Your task to perform on an android device: check data usage Image 0: 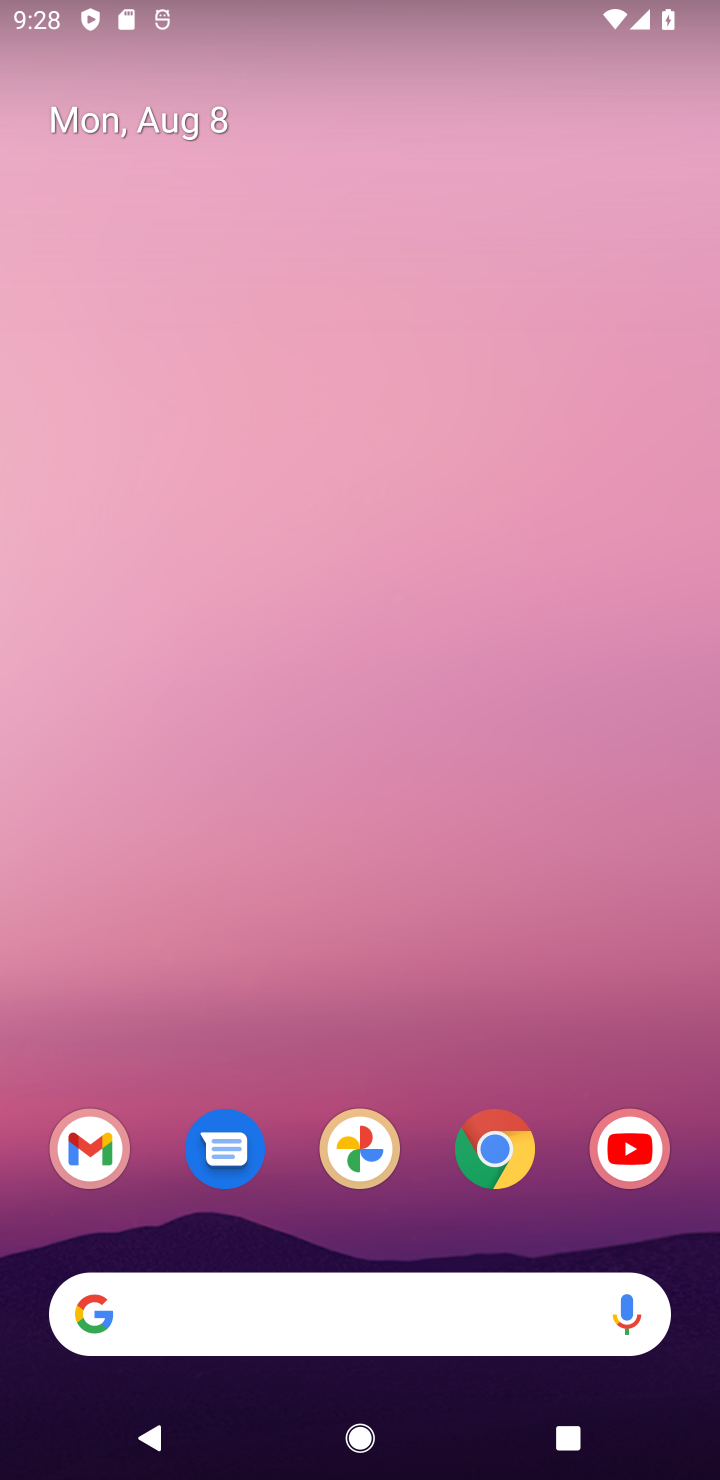
Step 0: drag from (352, 837) to (352, 301)
Your task to perform on an android device: check data usage Image 1: 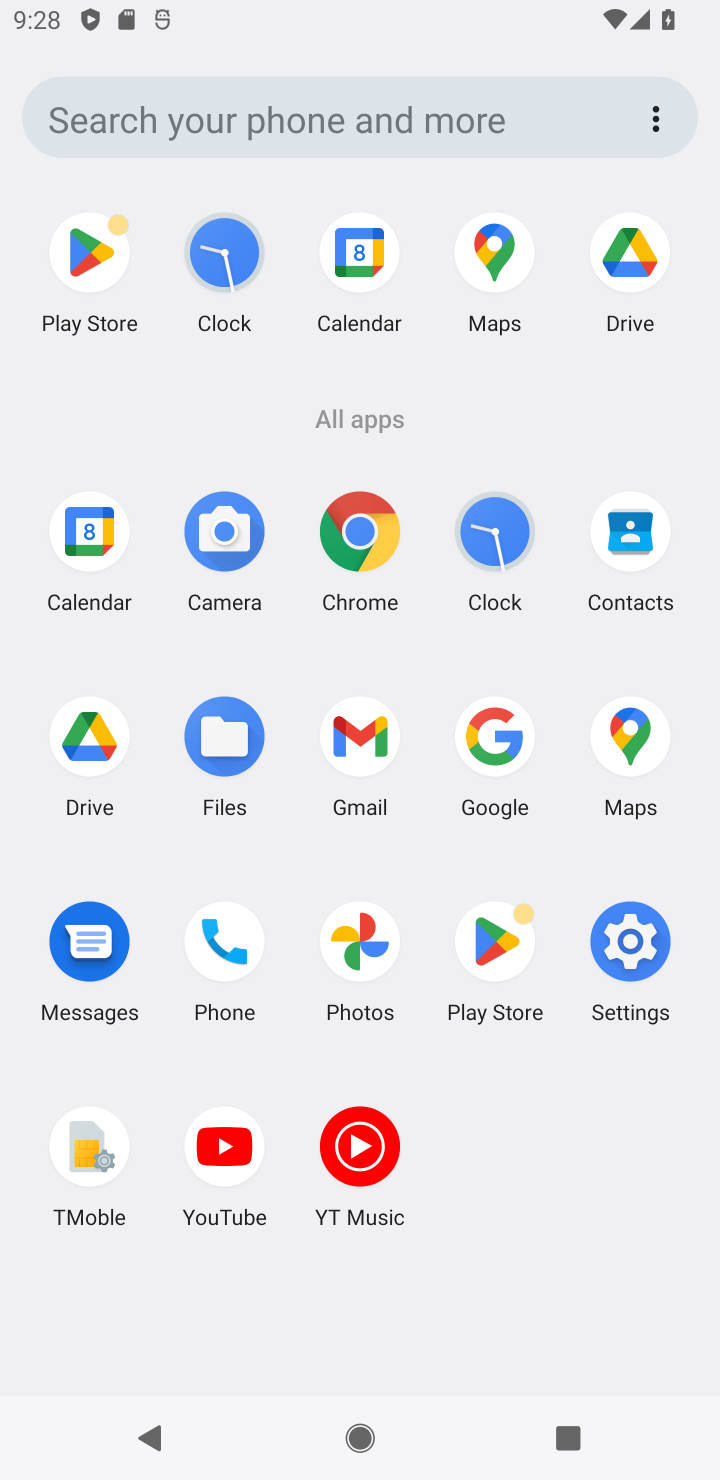
Step 1: click (604, 936)
Your task to perform on an android device: check data usage Image 2: 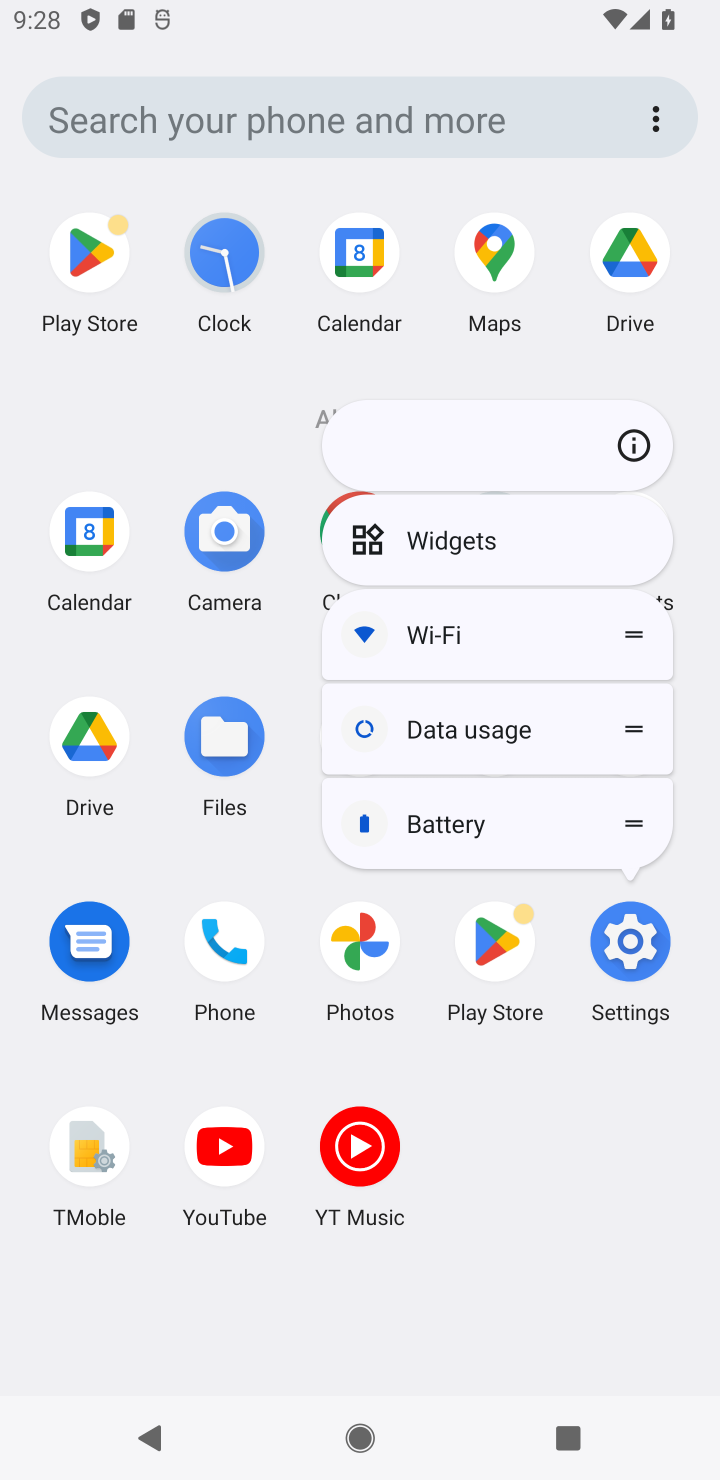
Step 2: click (626, 973)
Your task to perform on an android device: check data usage Image 3: 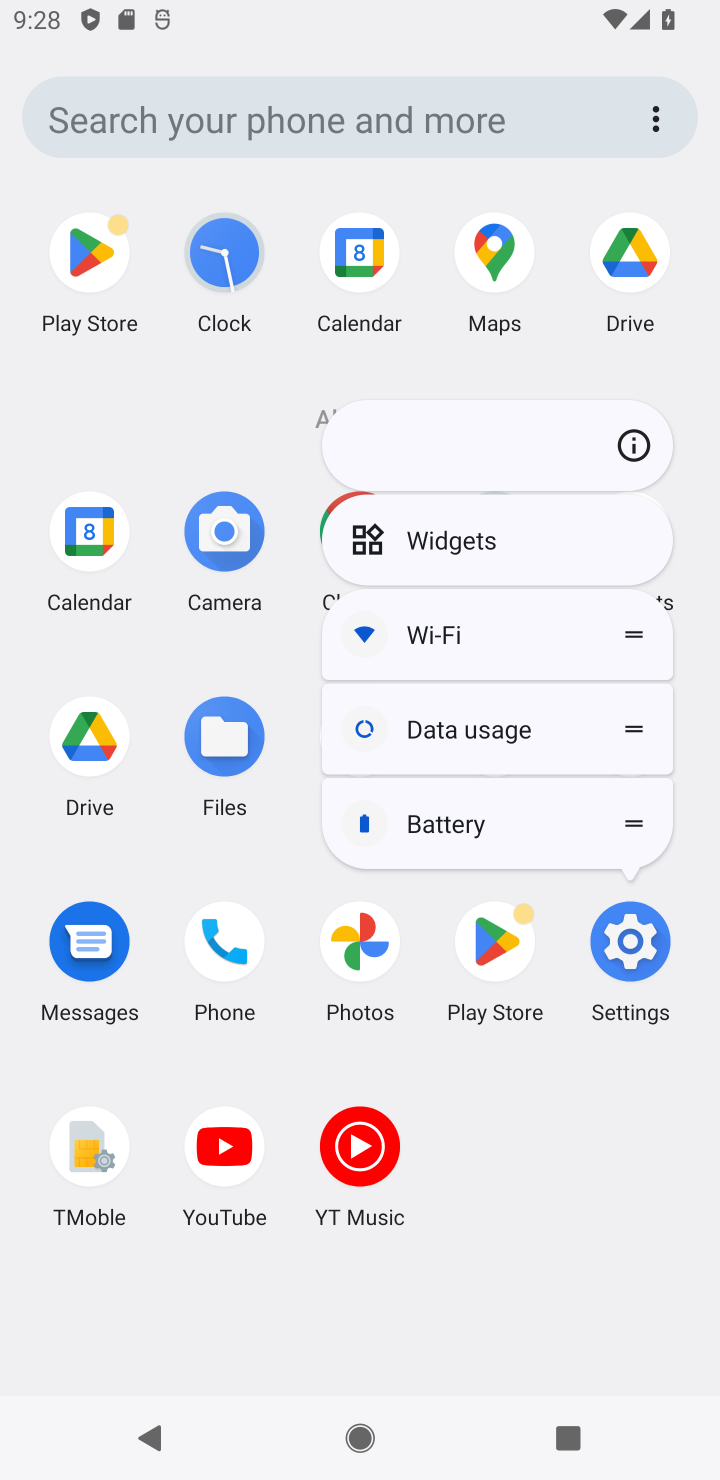
Step 3: click (636, 947)
Your task to perform on an android device: check data usage Image 4: 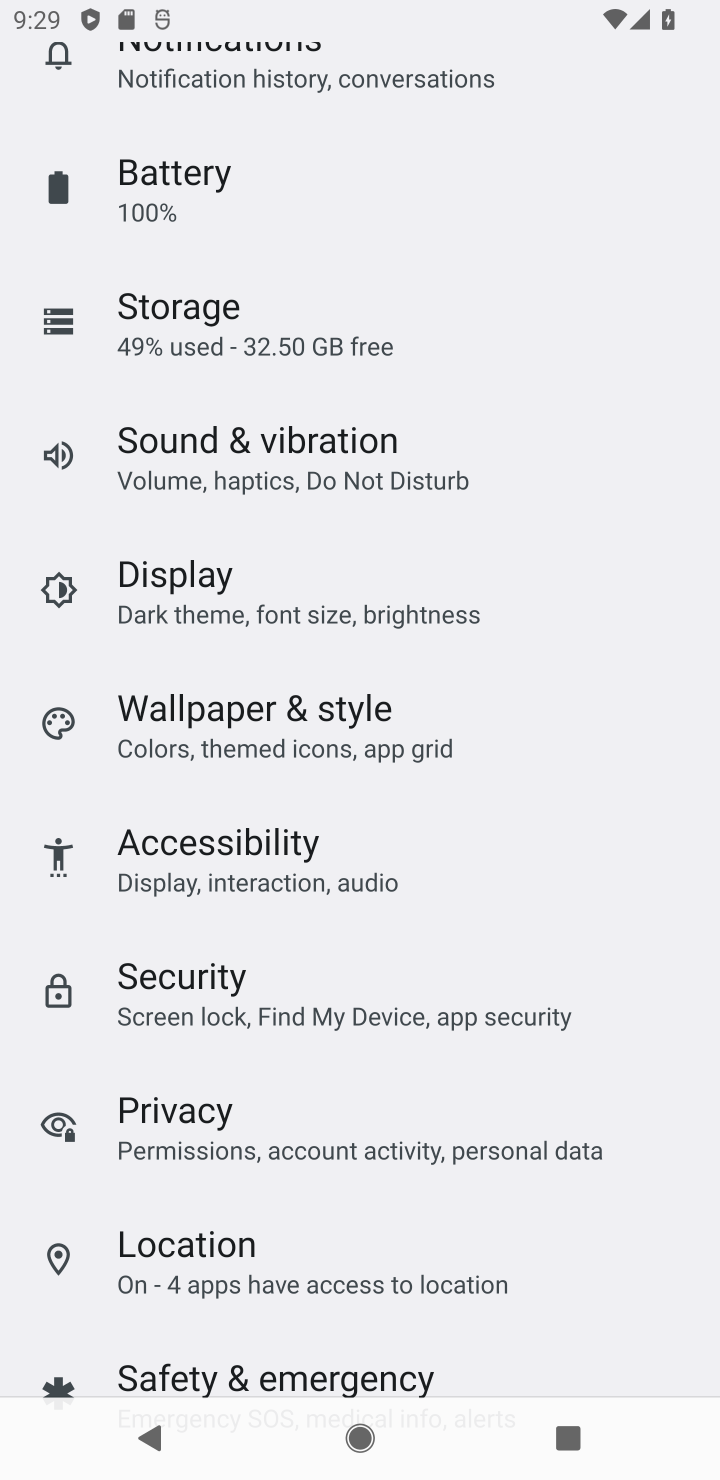
Step 4: drag from (243, 304) to (289, 1130)
Your task to perform on an android device: check data usage Image 5: 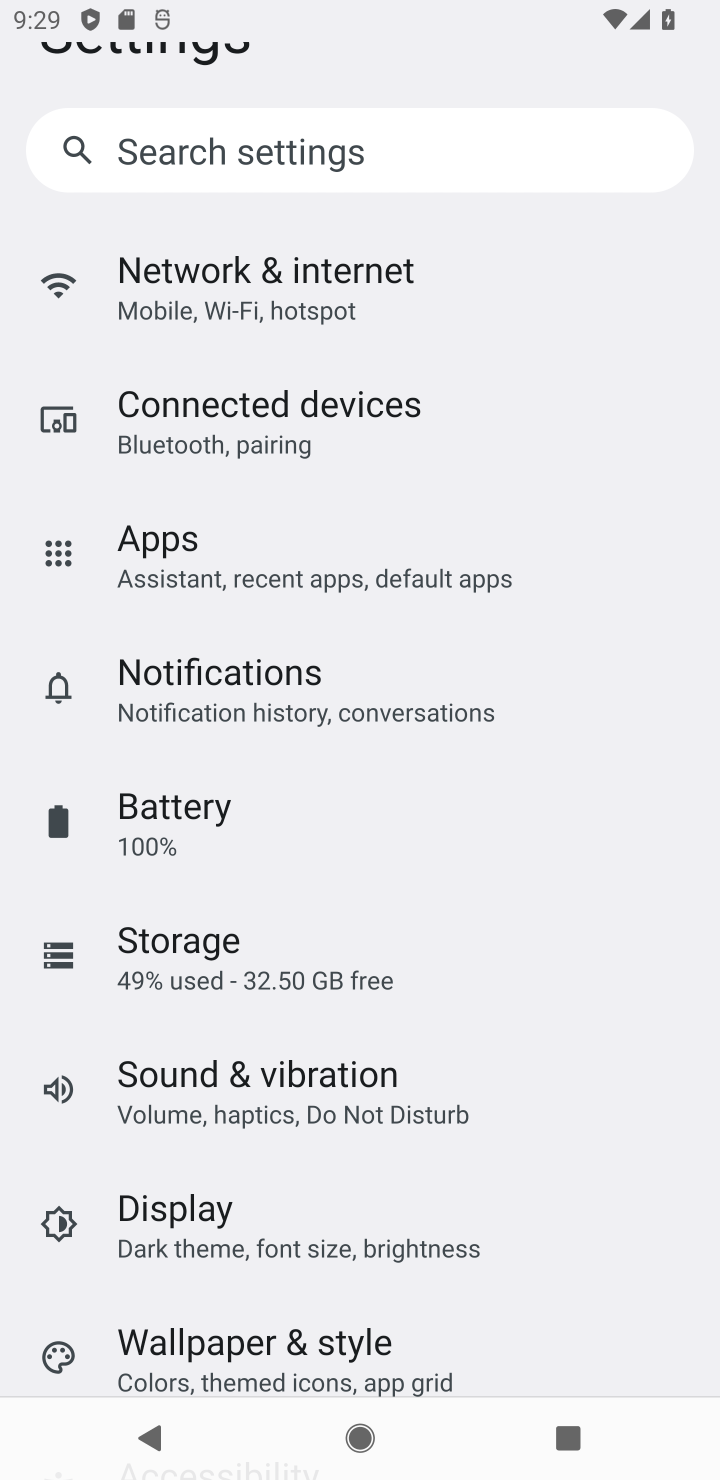
Step 5: drag from (222, 352) to (234, 1017)
Your task to perform on an android device: check data usage Image 6: 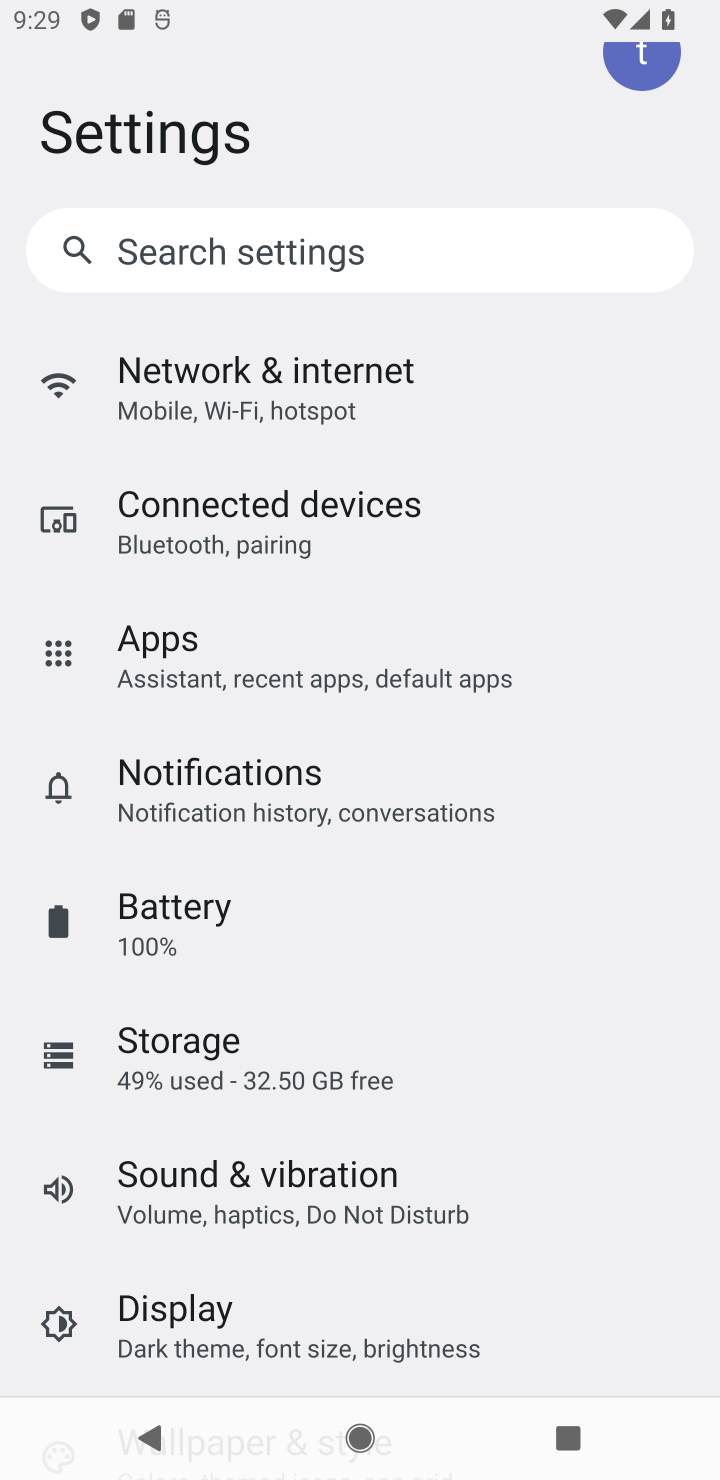
Step 6: click (210, 405)
Your task to perform on an android device: check data usage Image 7: 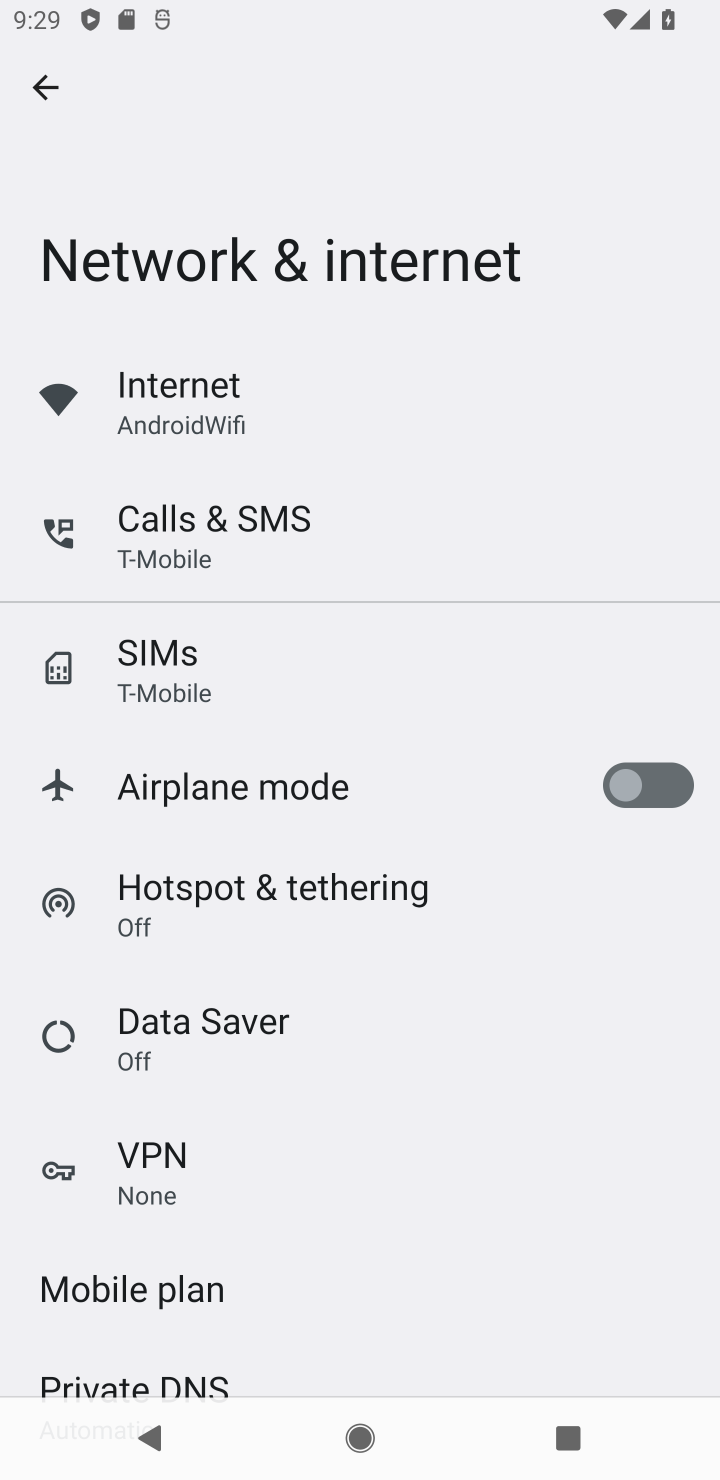
Step 7: click (182, 400)
Your task to perform on an android device: check data usage Image 8: 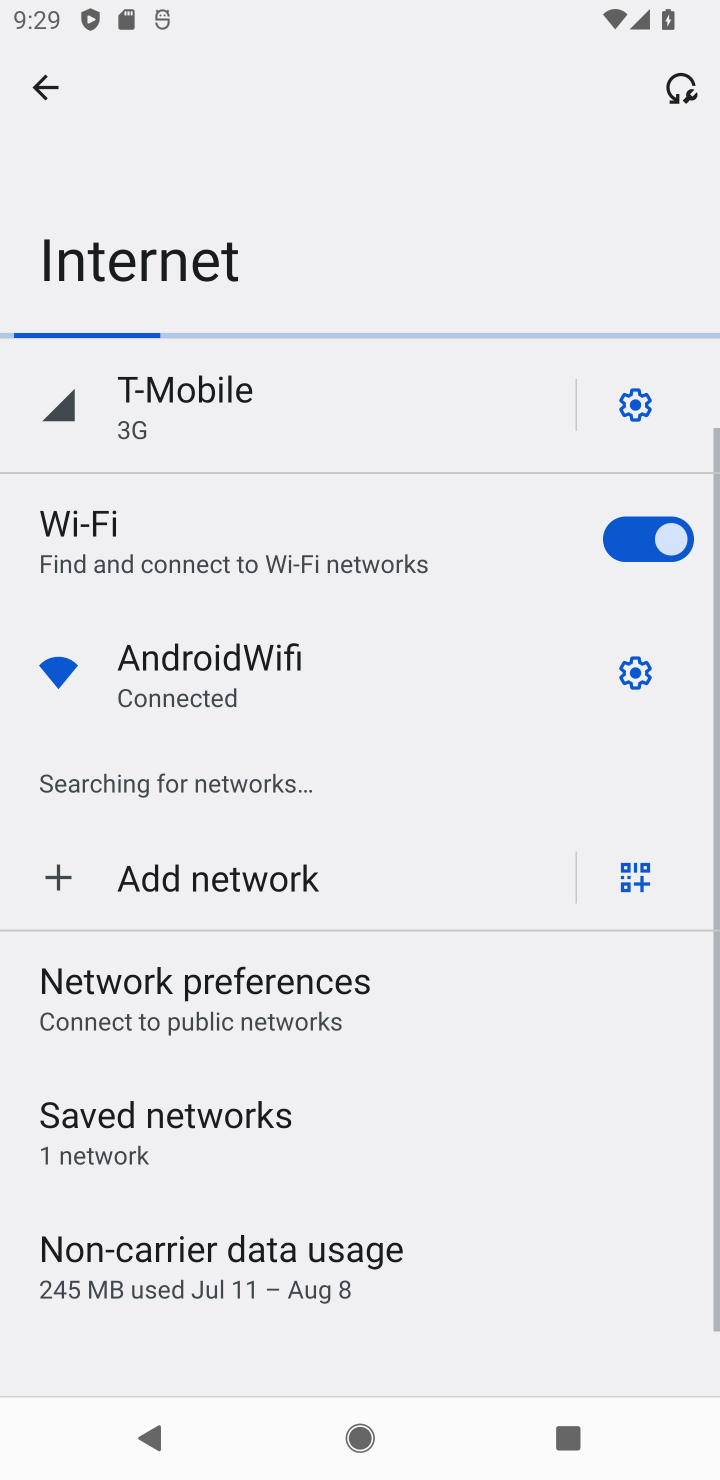
Step 8: click (222, 1272)
Your task to perform on an android device: check data usage Image 9: 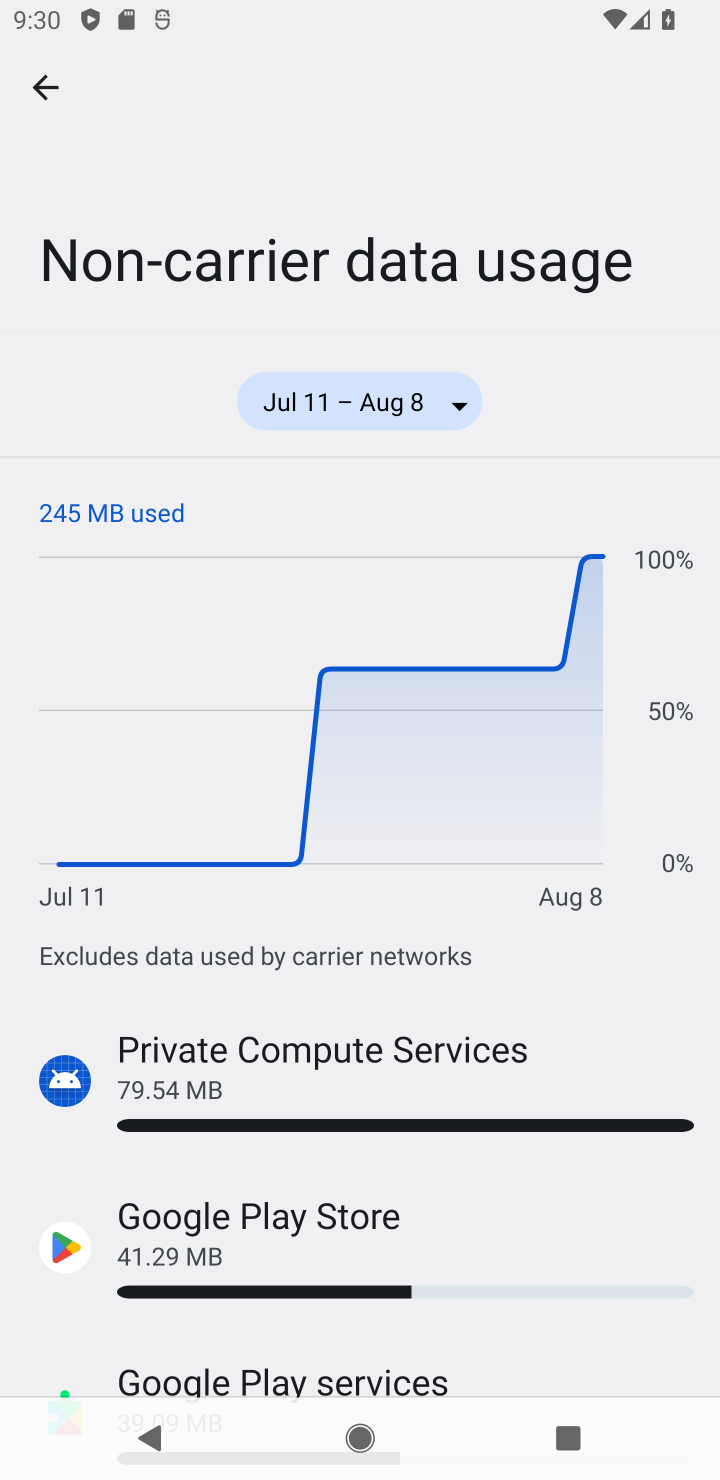
Step 9: task complete